Your task to perform on an android device: change your default location settings in chrome Image 0: 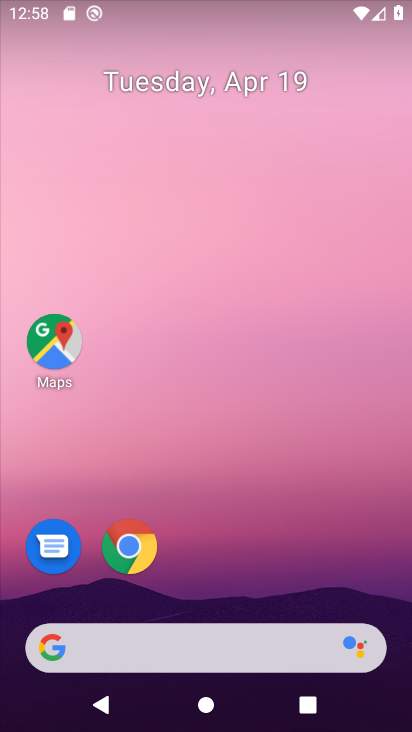
Step 0: click (132, 540)
Your task to perform on an android device: change your default location settings in chrome Image 1: 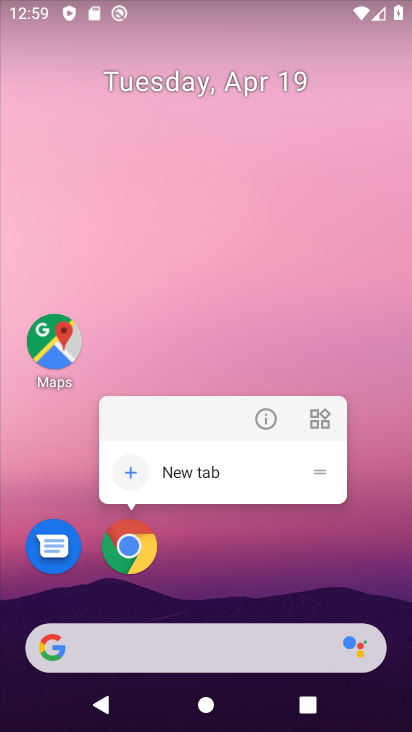
Step 1: click (122, 533)
Your task to perform on an android device: change your default location settings in chrome Image 2: 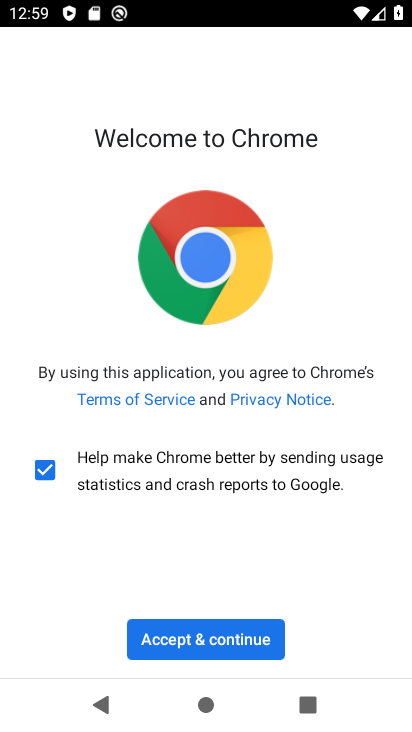
Step 2: click (252, 640)
Your task to perform on an android device: change your default location settings in chrome Image 3: 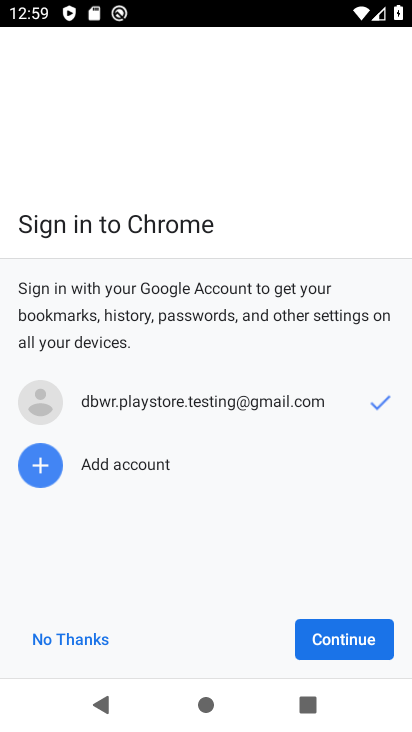
Step 3: click (307, 641)
Your task to perform on an android device: change your default location settings in chrome Image 4: 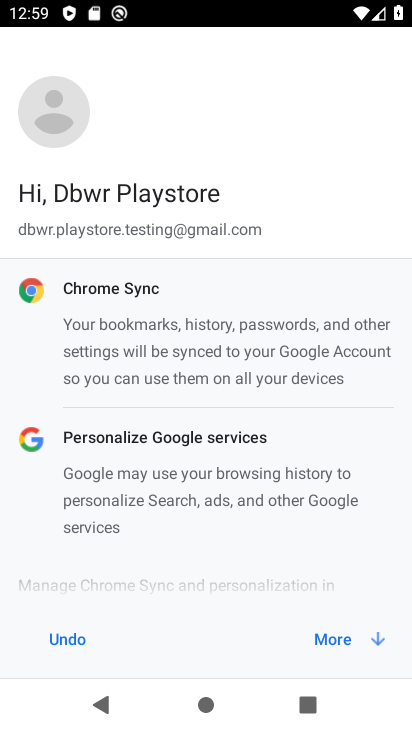
Step 4: click (352, 632)
Your task to perform on an android device: change your default location settings in chrome Image 5: 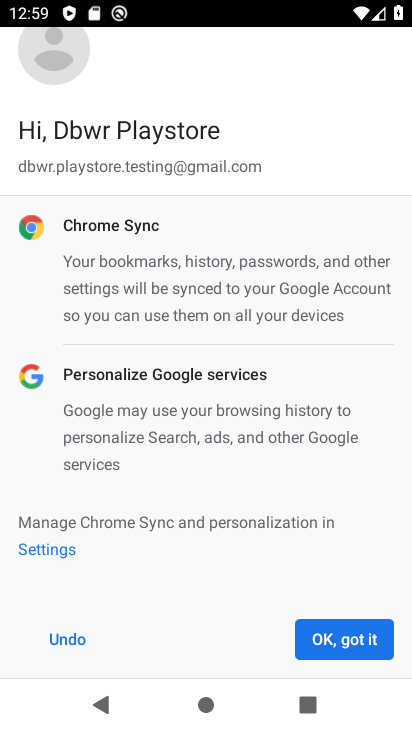
Step 5: click (351, 635)
Your task to perform on an android device: change your default location settings in chrome Image 6: 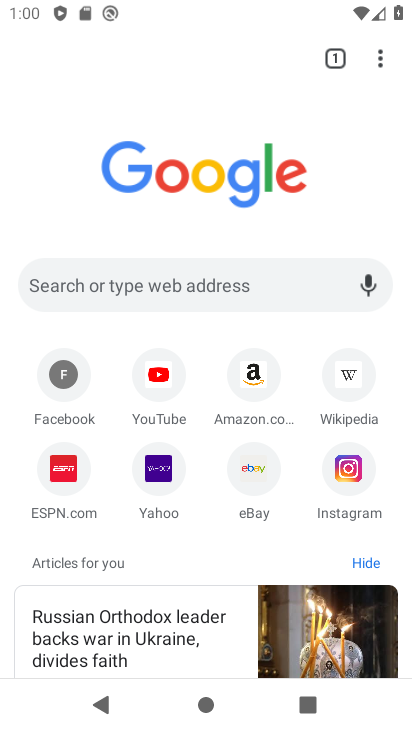
Step 6: click (380, 56)
Your task to perform on an android device: change your default location settings in chrome Image 7: 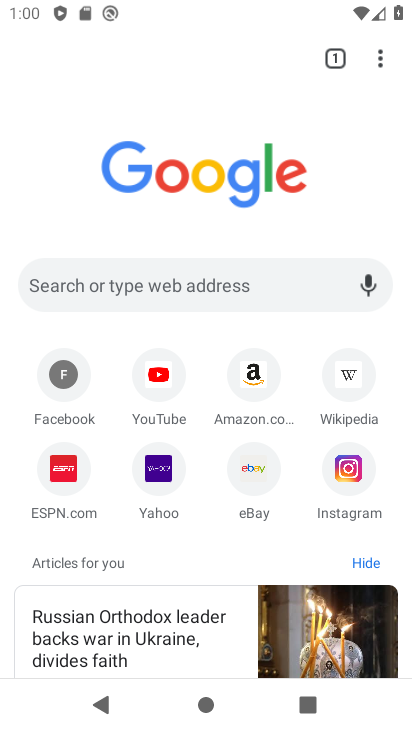
Step 7: click (379, 57)
Your task to perform on an android device: change your default location settings in chrome Image 8: 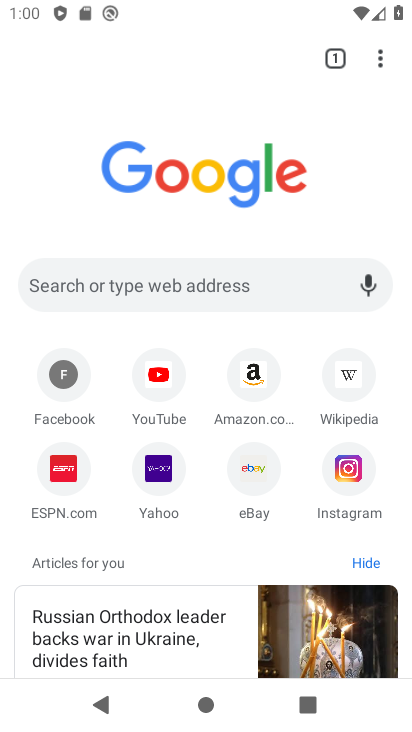
Step 8: drag from (379, 57) to (206, 500)
Your task to perform on an android device: change your default location settings in chrome Image 9: 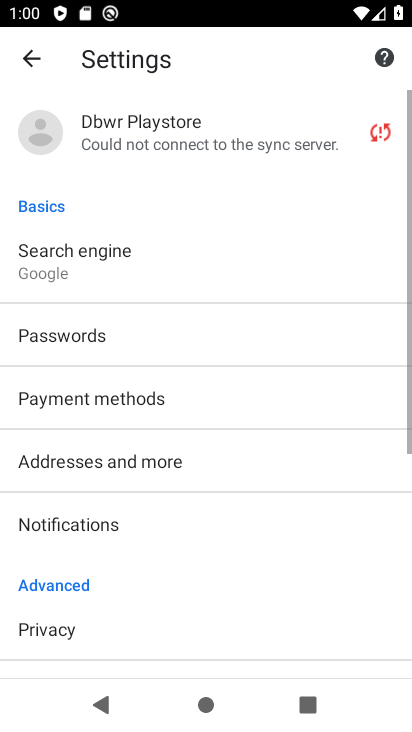
Step 9: drag from (130, 582) to (240, 57)
Your task to perform on an android device: change your default location settings in chrome Image 10: 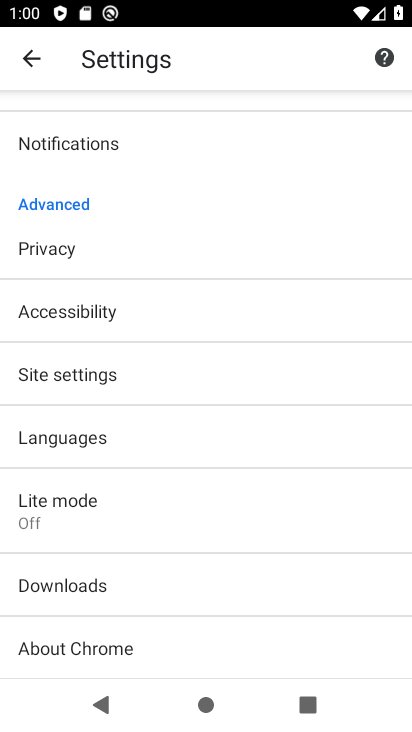
Step 10: click (74, 373)
Your task to perform on an android device: change your default location settings in chrome Image 11: 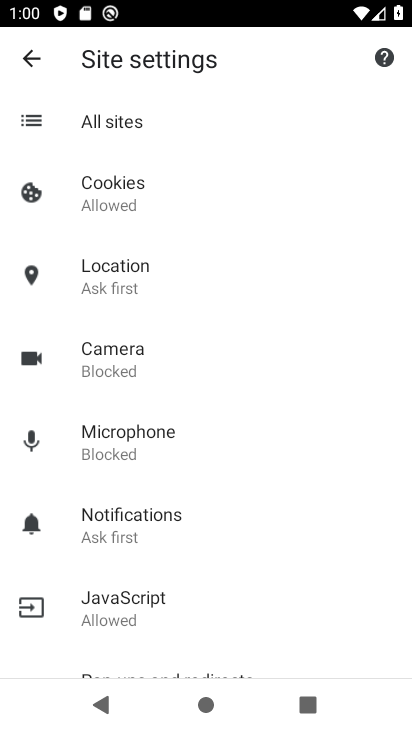
Step 11: click (151, 266)
Your task to perform on an android device: change your default location settings in chrome Image 12: 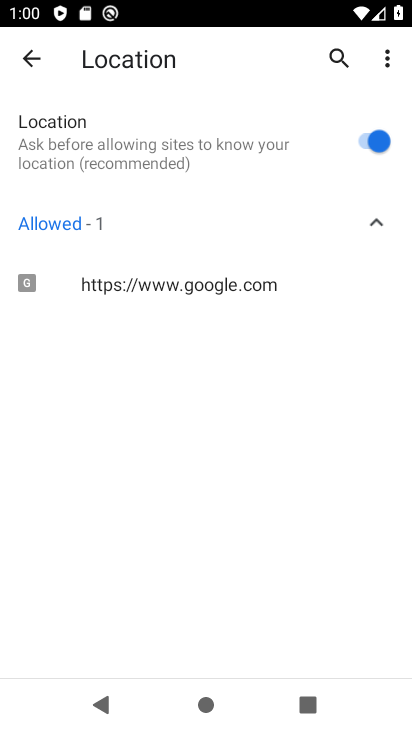
Step 12: click (198, 281)
Your task to perform on an android device: change your default location settings in chrome Image 13: 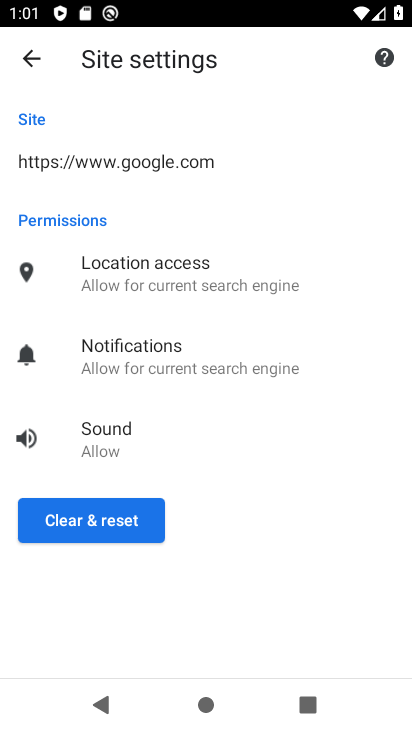
Step 13: click (178, 289)
Your task to perform on an android device: change your default location settings in chrome Image 14: 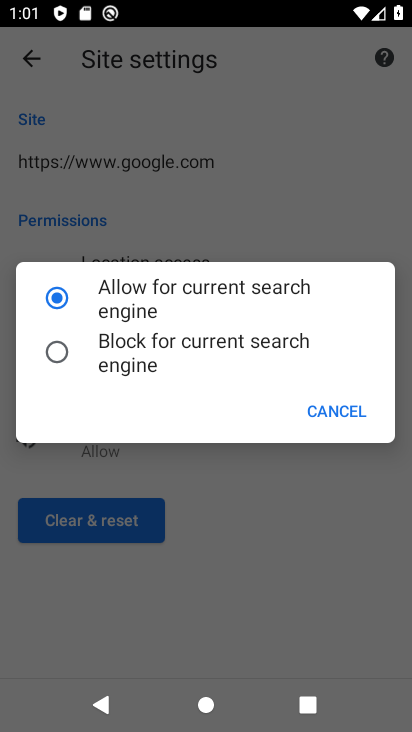
Step 14: click (147, 353)
Your task to perform on an android device: change your default location settings in chrome Image 15: 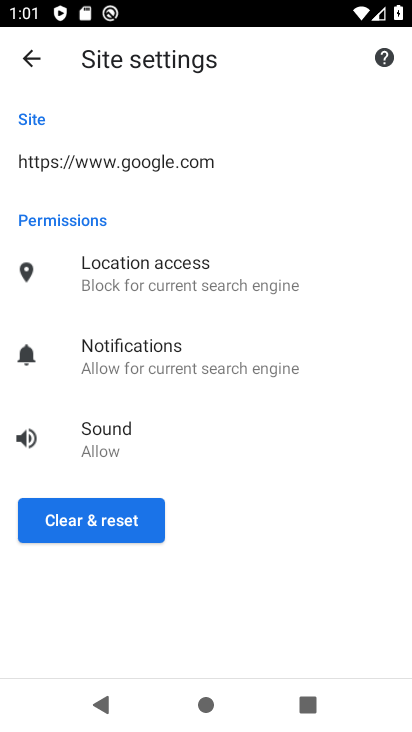
Step 15: task complete